Your task to perform on an android device: Open Wikipedia Image 0: 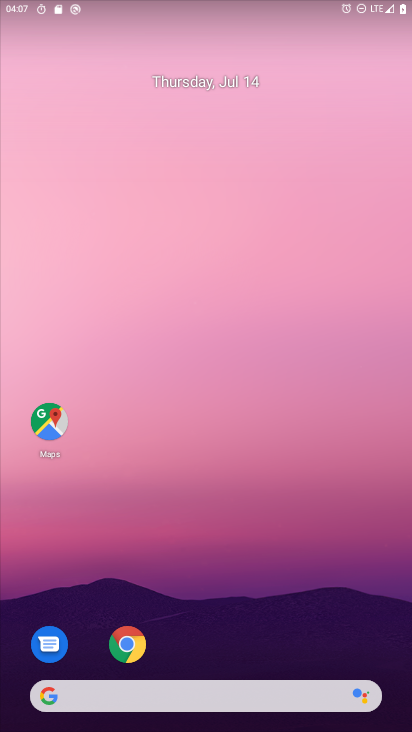
Step 0: drag from (292, 571) to (197, 51)
Your task to perform on an android device: Open Wikipedia Image 1: 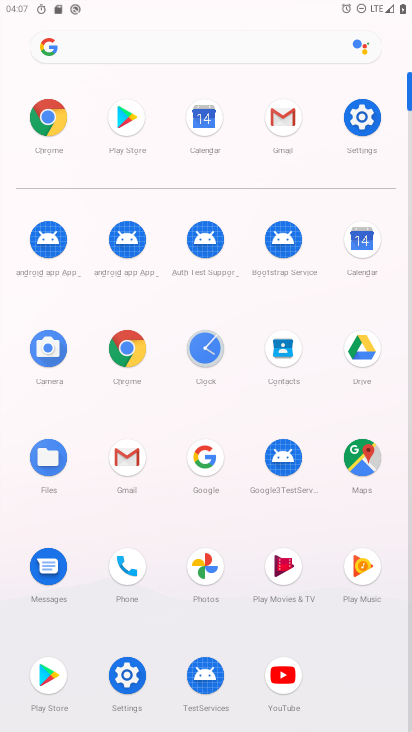
Step 1: click (45, 110)
Your task to perform on an android device: Open Wikipedia Image 2: 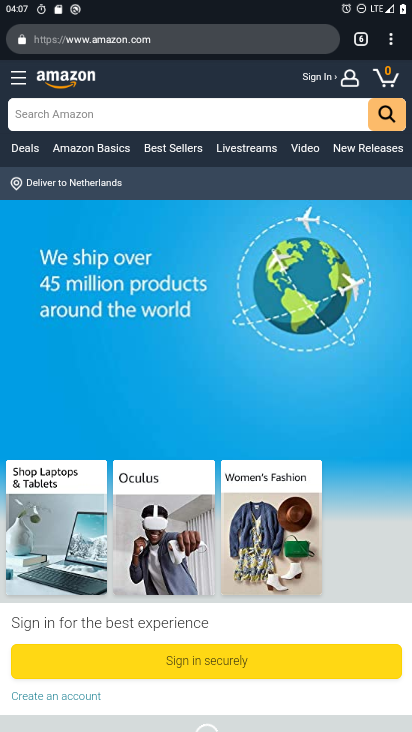
Step 2: click (200, 37)
Your task to perform on an android device: Open Wikipedia Image 3: 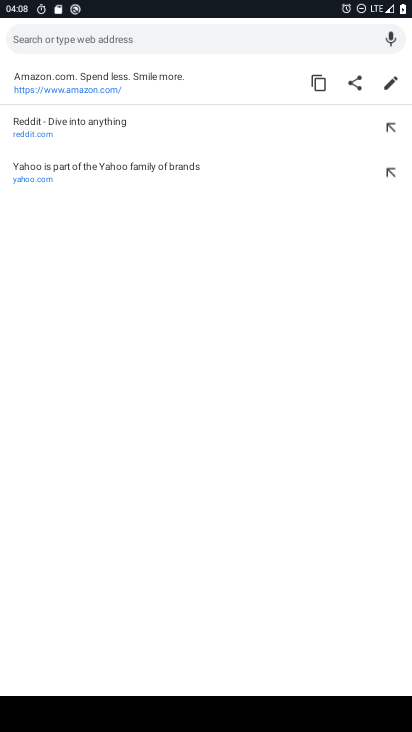
Step 3: type "wikipedia"
Your task to perform on an android device: Open Wikipedia Image 4: 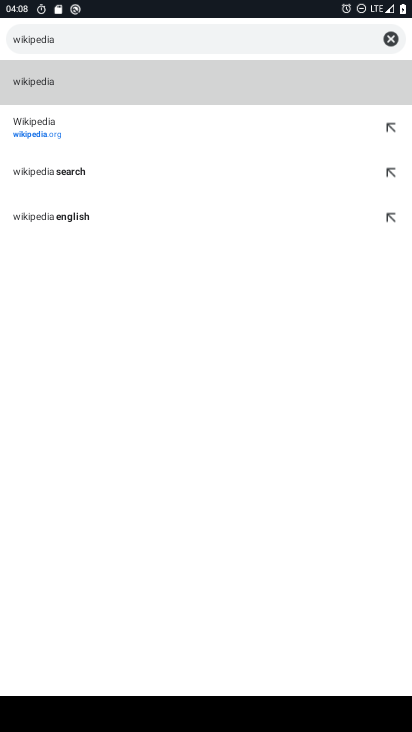
Step 4: click (34, 139)
Your task to perform on an android device: Open Wikipedia Image 5: 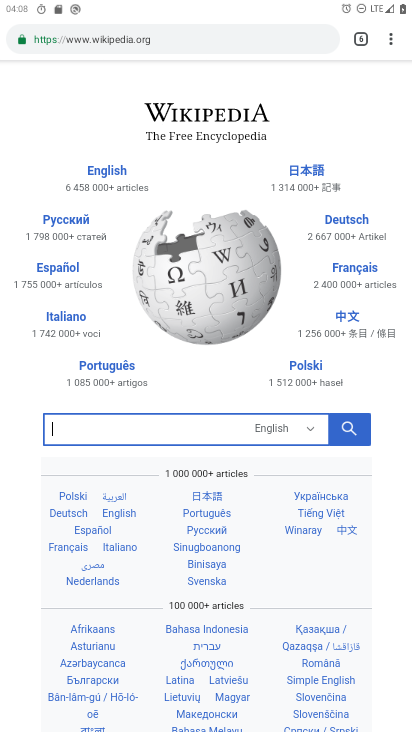
Step 5: task complete